Your task to perform on an android device: check google app version Image 0: 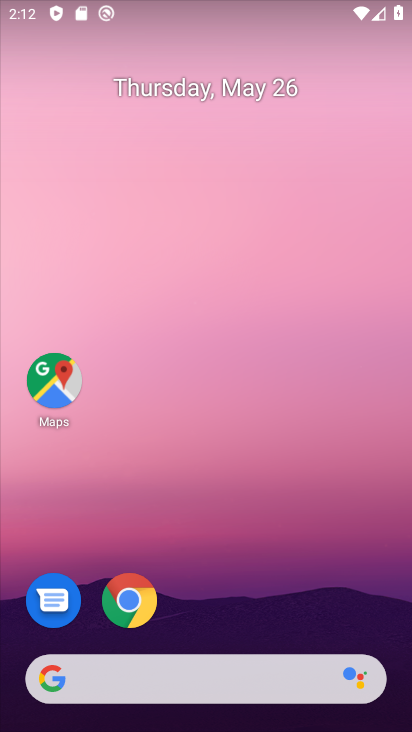
Step 0: drag from (244, 637) to (255, 156)
Your task to perform on an android device: check google app version Image 1: 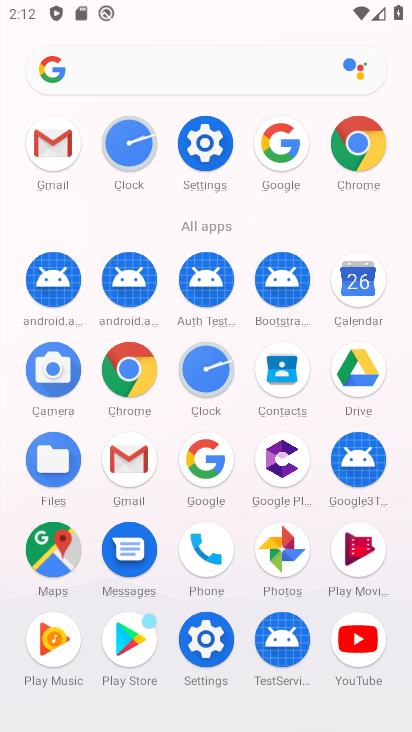
Step 1: click (218, 461)
Your task to perform on an android device: check google app version Image 2: 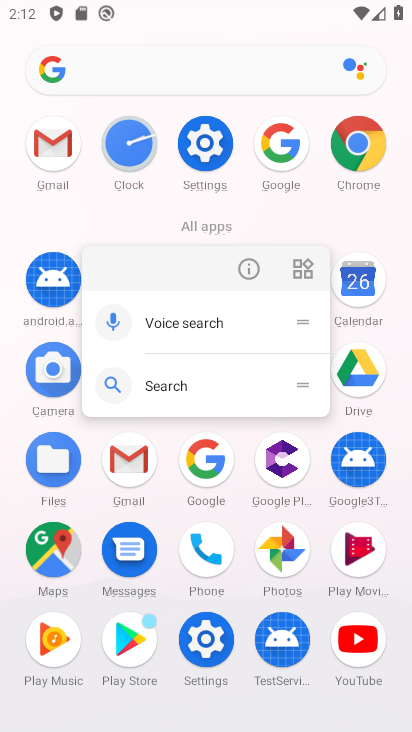
Step 2: click (244, 276)
Your task to perform on an android device: check google app version Image 3: 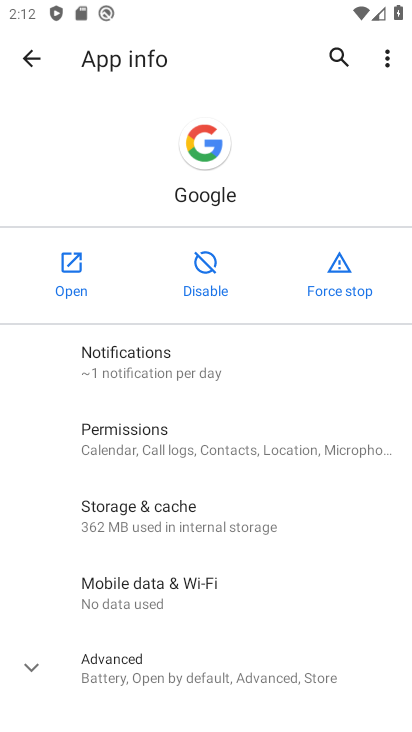
Step 3: drag from (238, 542) to (269, 173)
Your task to perform on an android device: check google app version Image 4: 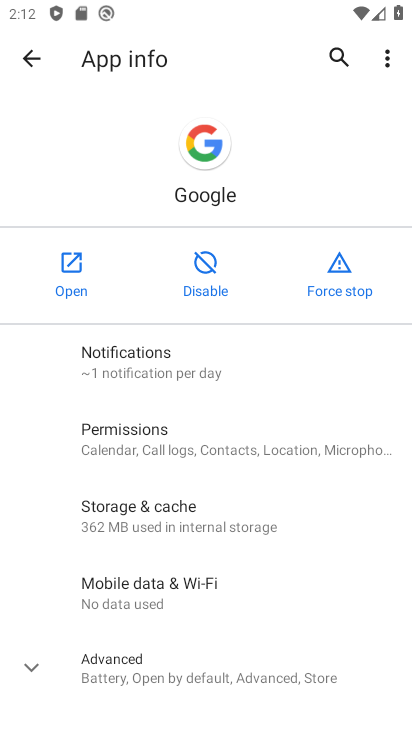
Step 4: click (215, 679)
Your task to perform on an android device: check google app version Image 5: 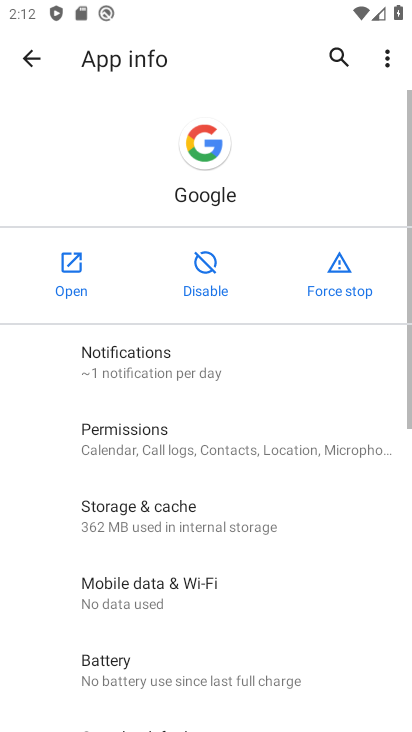
Step 5: task complete